Your task to perform on an android device: Go to sound settings Image 0: 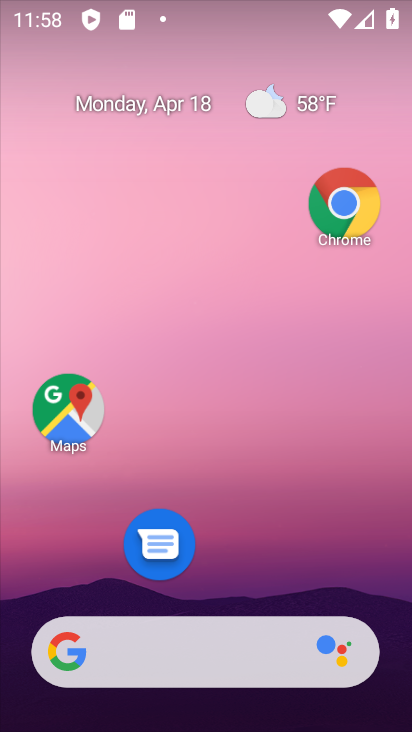
Step 0: drag from (261, 541) to (248, 59)
Your task to perform on an android device: Go to sound settings Image 1: 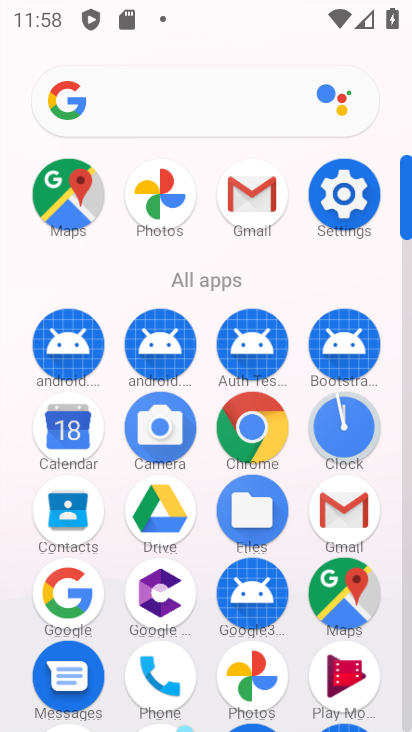
Step 1: click (317, 218)
Your task to perform on an android device: Go to sound settings Image 2: 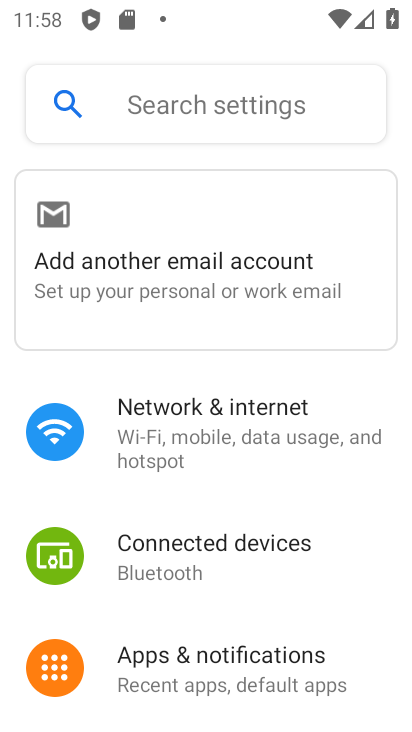
Step 2: drag from (310, 628) to (295, 241)
Your task to perform on an android device: Go to sound settings Image 3: 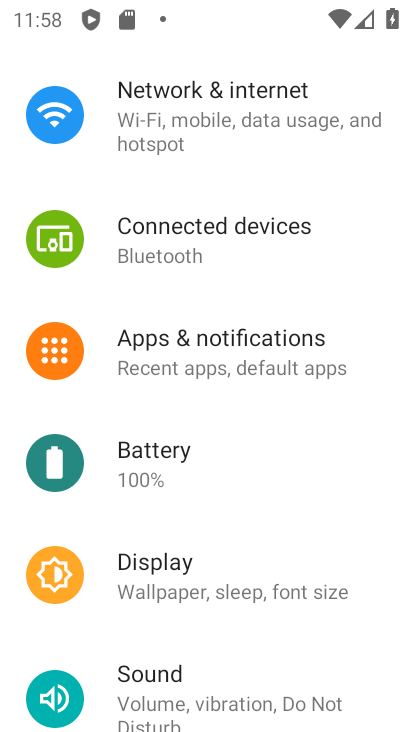
Step 3: drag from (269, 626) to (283, 318)
Your task to perform on an android device: Go to sound settings Image 4: 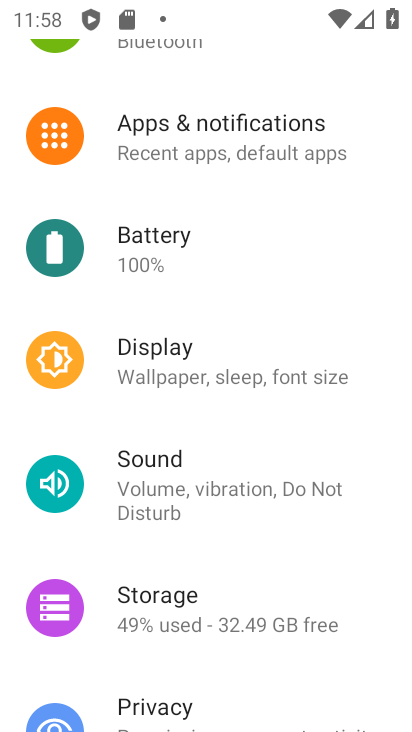
Step 4: click (223, 486)
Your task to perform on an android device: Go to sound settings Image 5: 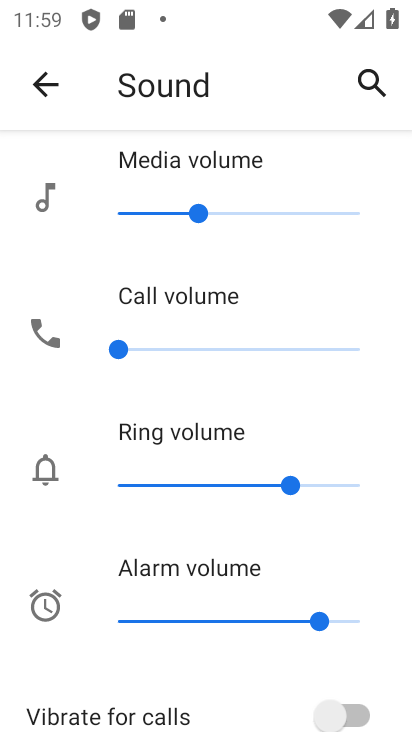
Step 5: task complete